Your task to perform on an android device: turn on improve location accuracy Image 0: 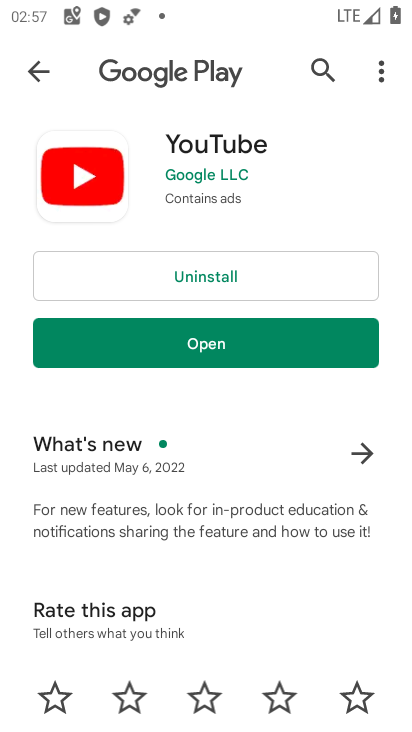
Step 0: press home button
Your task to perform on an android device: turn on improve location accuracy Image 1: 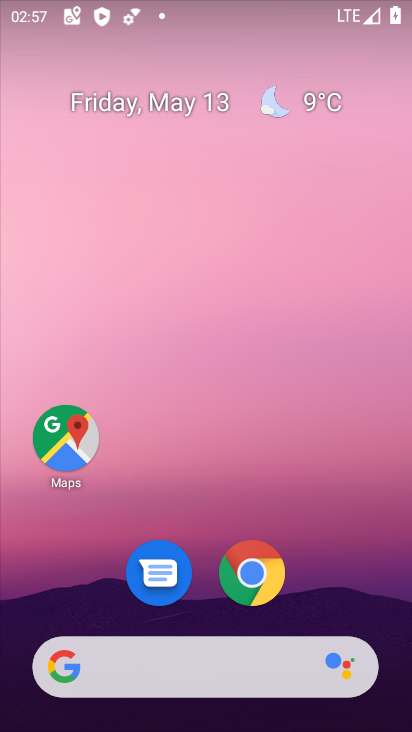
Step 1: drag from (363, 590) to (235, 64)
Your task to perform on an android device: turn on improve location accuracy Image 2: 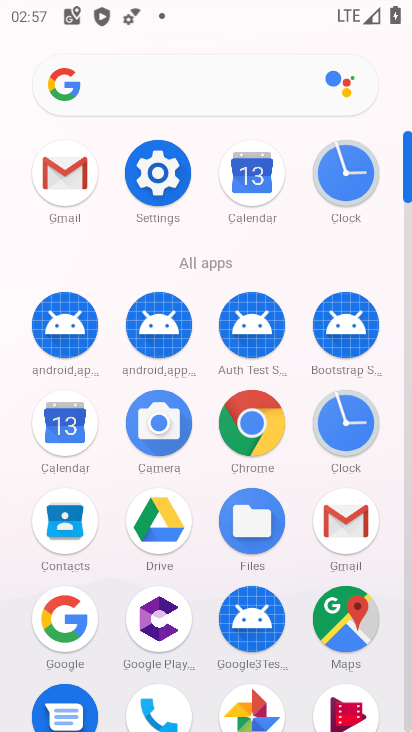
Step 2: click (159, 169)
Your task to perform on an android device: turn on improve location accuracy Image 3: 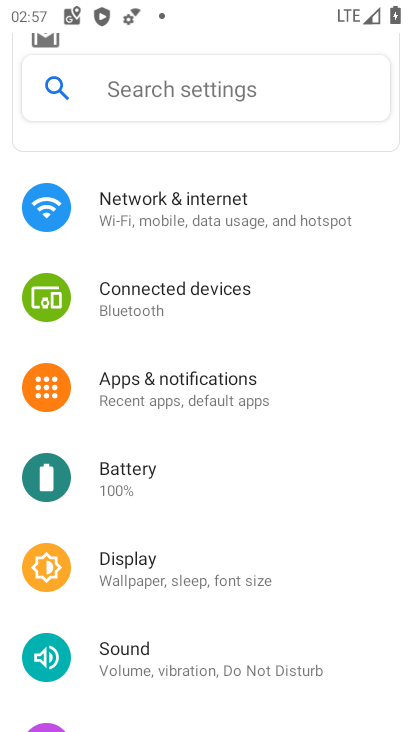
Step 3: drag from (208, 614) to (200, 359)
Your task to perform on an android device: turn on improve location accuracy Image 4: 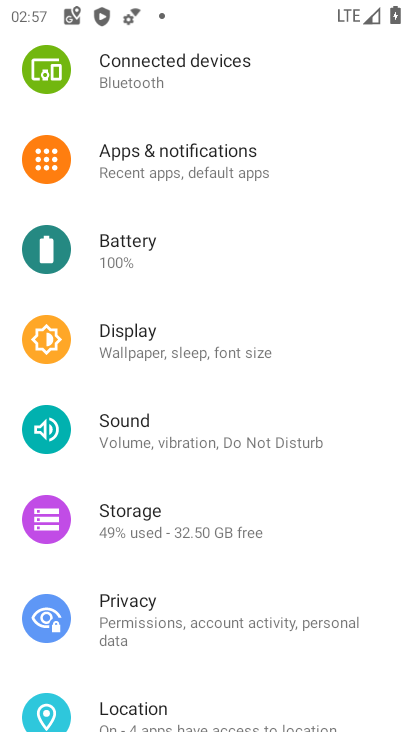
Step 4: drag from (185, 568) to (189, 347)
Your task to perform on an android device: turn on improve location accuracy Image 5: 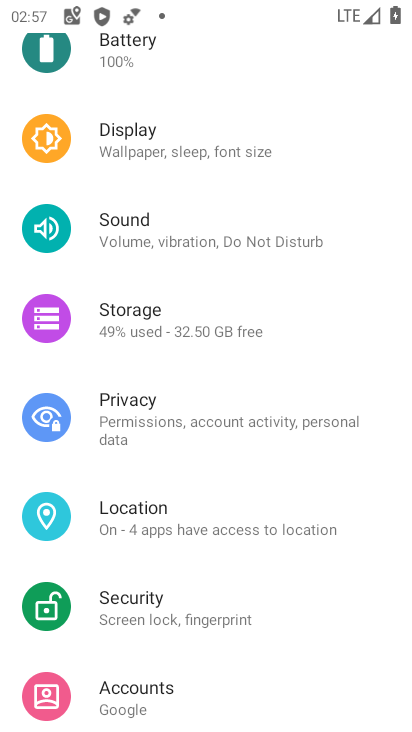
Step 5: drag from (189, 487) to (185, 352)
Your task to perform on an android device: turn on improve location accuracy Image 6: 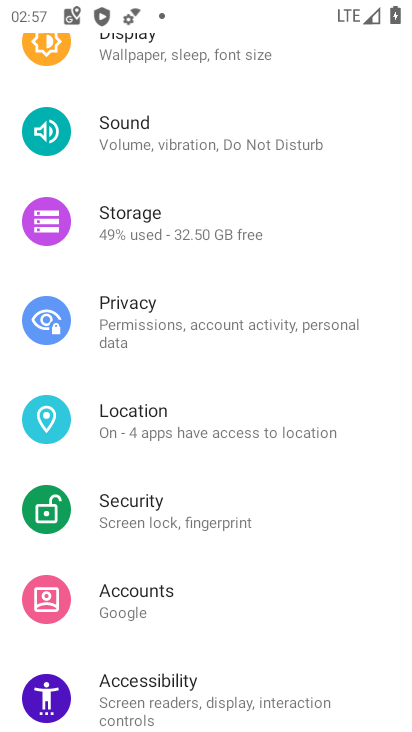
Step 6: drag from (207, 572) to (227, 412)
Your task to perform on an android device: turn on improve location accuracy Image 7: 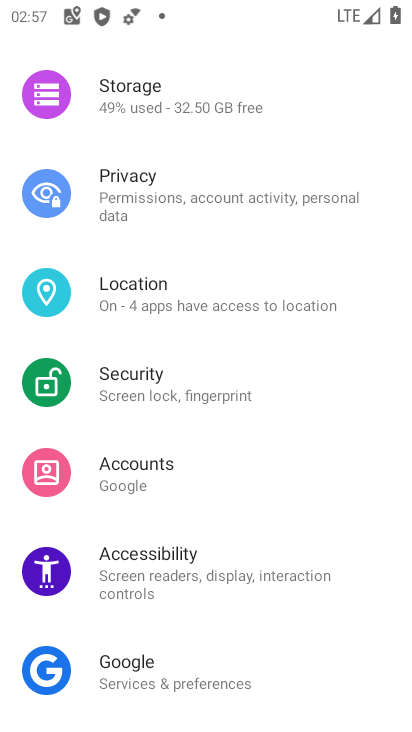
Step 7: click (144, 307)
Your task to perform on an android device: turn on improve location accuracy Image 8: 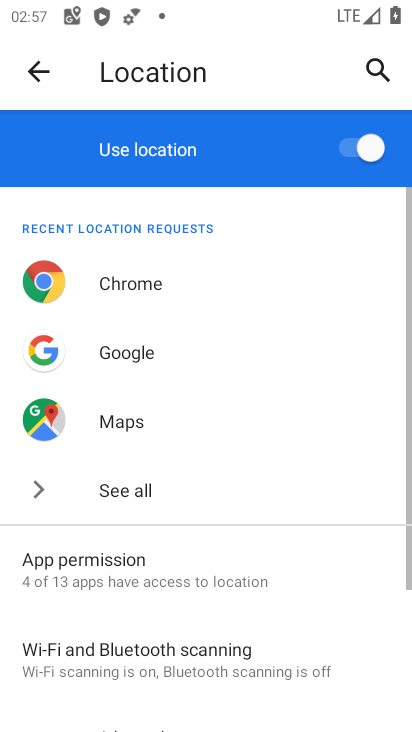
Step 8: drag from (176, 606) to (209, 394)
Your task to perform on an android device: turn on improve location accuracy Image 9: 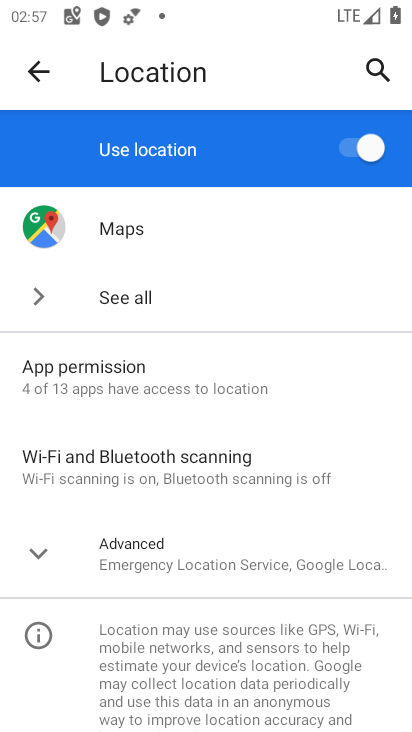
Step 9: click (199, 570)
Your task to perform on an android device: turn on improve location accuracy Image 10: 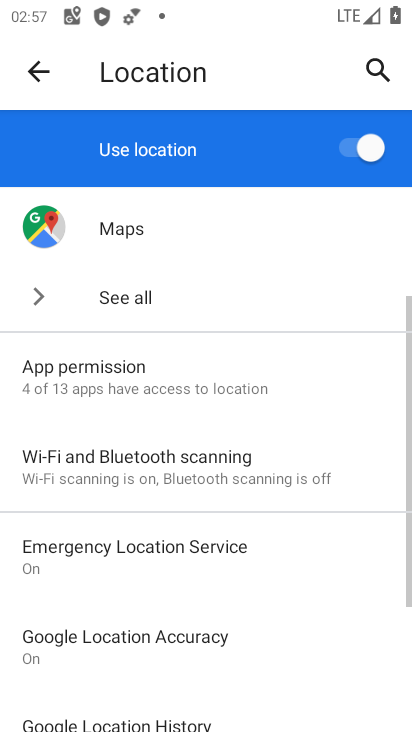
Step 10: drag from (193, 609) to (261, 508)
Your task to perform on an android device: turn on improve location accuracy Image 11: 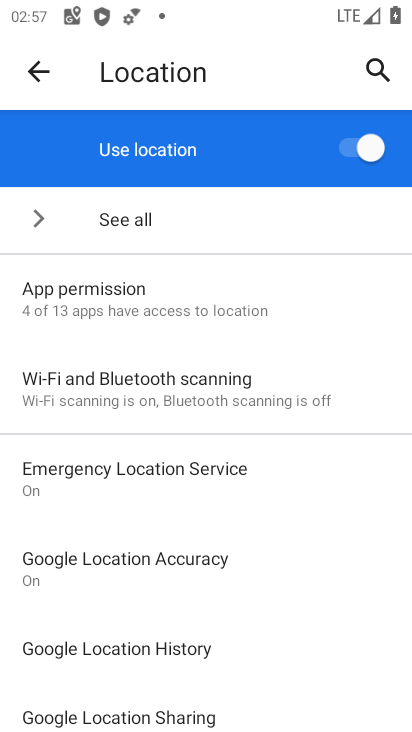
Step 11: click (199, 564)
Your task to perform on an android device: turn on improve location accuracy Image 12: 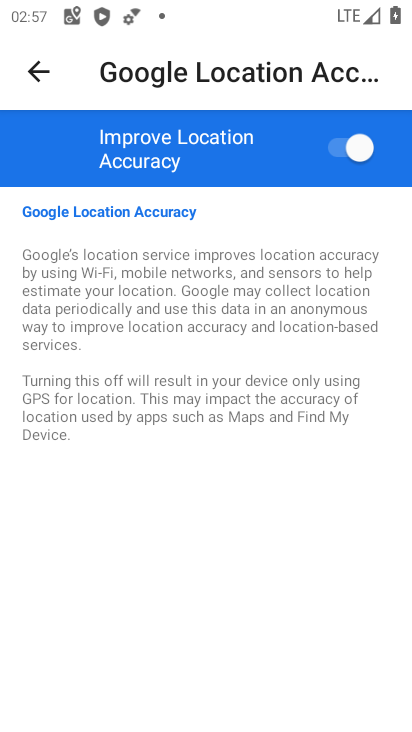
Step 12: task complete